Your task to perform on an android device: What's the weather? Image 0: 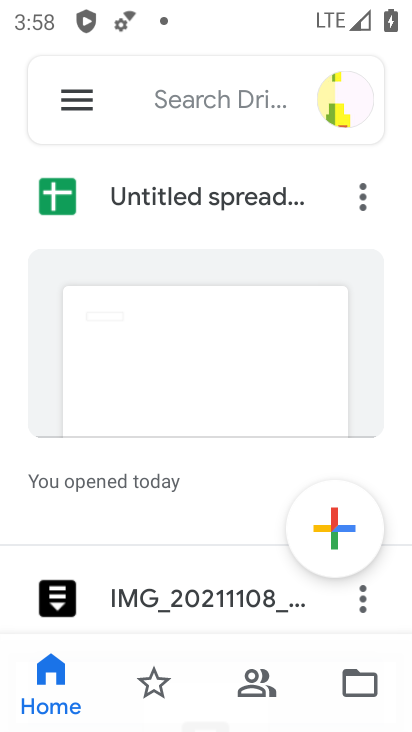
Step 0: press home button
Your task to perform on an android device: What's the weather? Image 1: 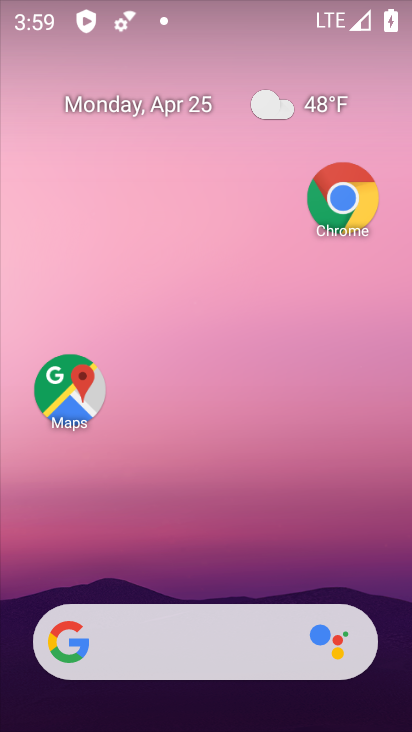
Step 1: click (315, 102)
Your task to perform on an android device: What's the weather? Image 2: 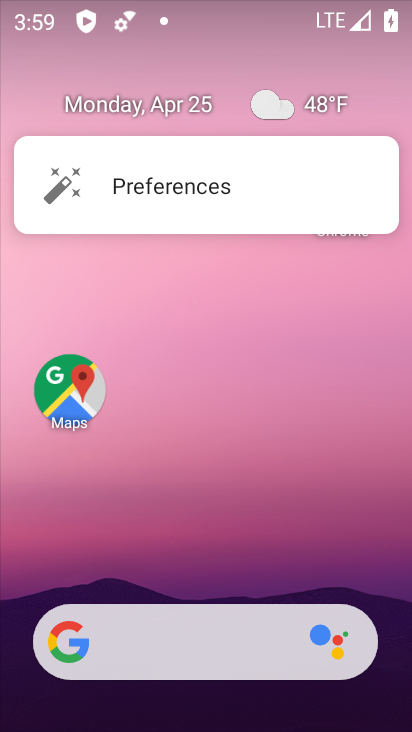
Step 2: click (325, 112)
Your task to perform on an android device: What's the weather? Image 3: 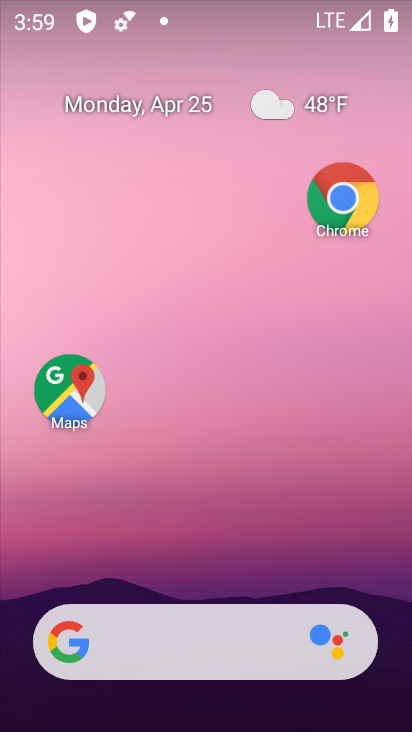
Step 3: click (317, 105)
Your task to perform on an android device: What's the weather? Image 4: 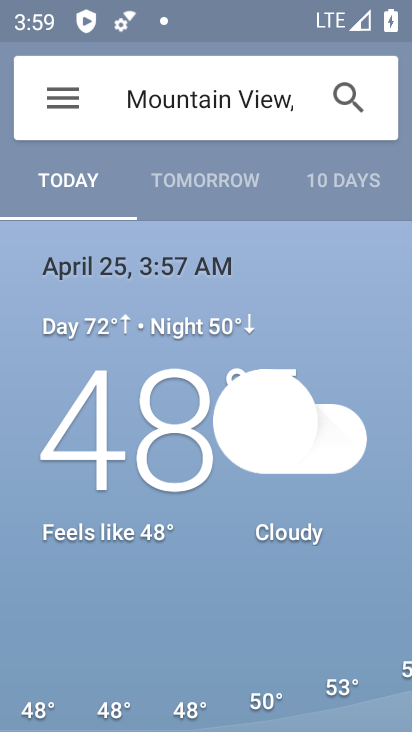
Step 4: task complete